Your task to perform on an android device: find snoozed emails in the gmail app Image 0: 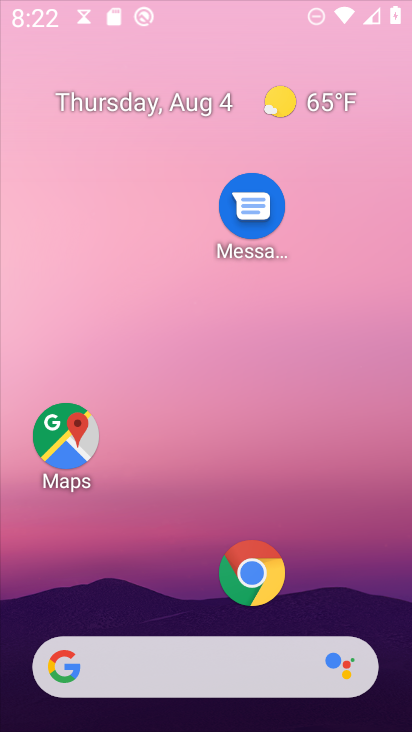
Step 0: press home button
Your task to perform on an android device: find snoozed emails in the gmail app Image 1: 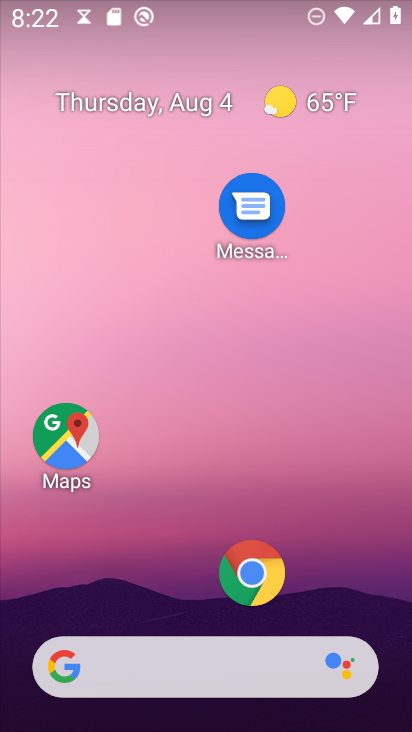
Step 1: drag from (141, 618) to (186, 197)
Your task to perform on an android device: find snoozed emails in the gmail app Image 2: 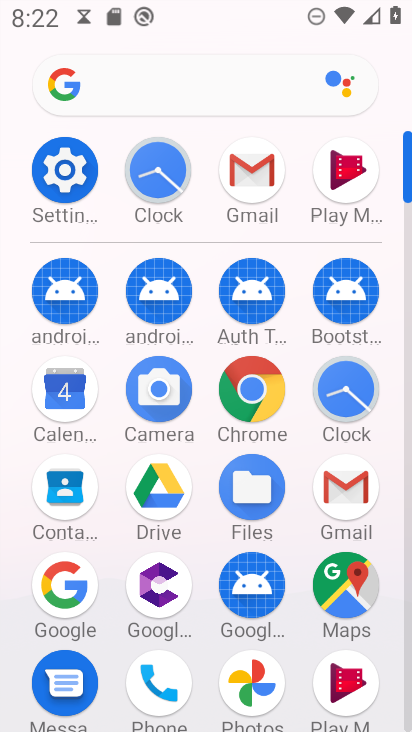
Step 2: click (256, 175)
Your task to perform on an android device: find snoozed emails in the gmail app Image 3: 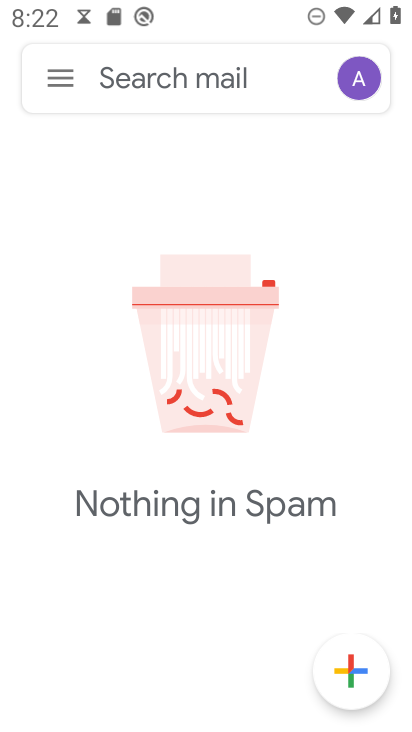
Step 3: click (53, 74)
Your task to perform on an android device: find snoozed emails in the gmail app Image 4: 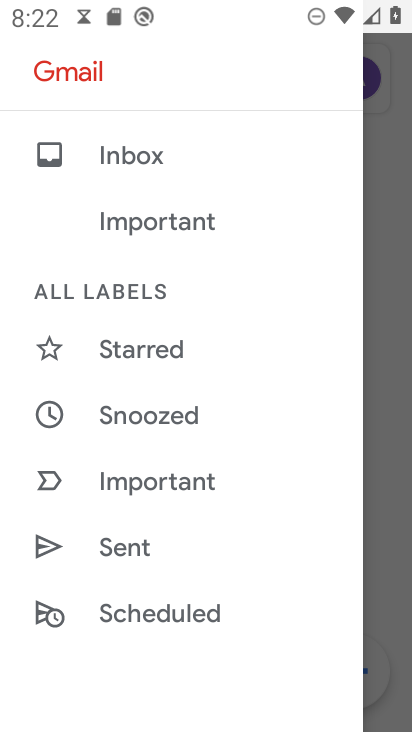
Step 4: click (142, 413)
Your task to perform on an android device: find snoozed emails in the gmail app Image 5: 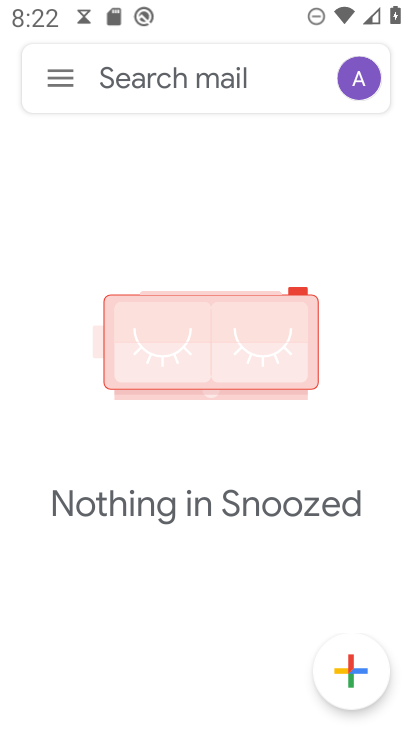
Step 5: task complete